Your task to perform on an android device: turn off location Image 0: 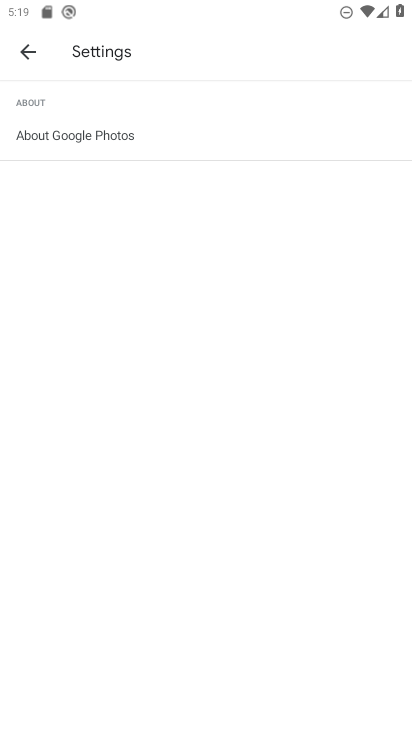
Step 0: press home button
Your task to perform on an android device: turn off location Image 1: 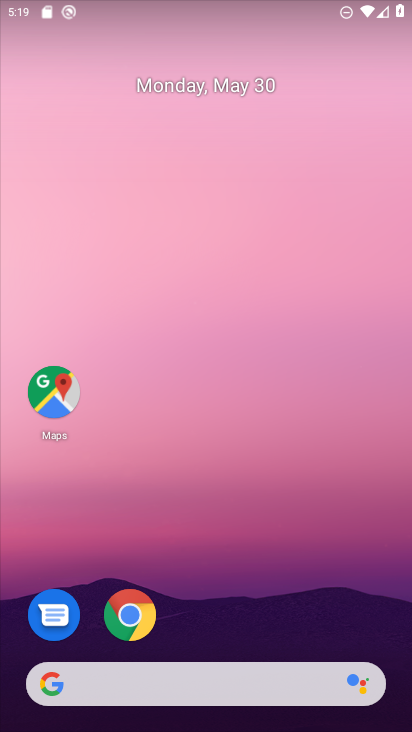
Step 1: drag from (300, 594) to (363, 131)
Your task to perform on an android device: turn off location Image 2: 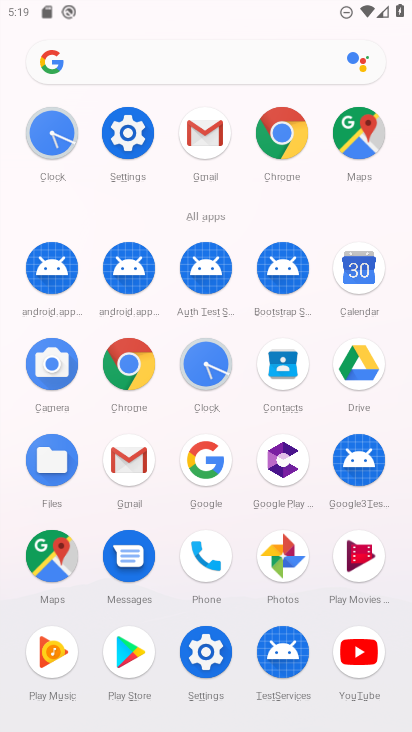
Step 2: click (129, 119)
Your task to perform on an android device: turn off location Image 3: 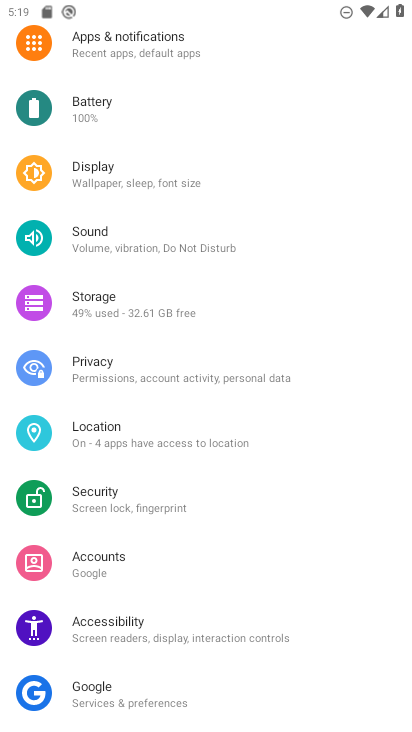
Step 3: click (169, 438)
Your task to perform on an android device: turn off location Image 4: 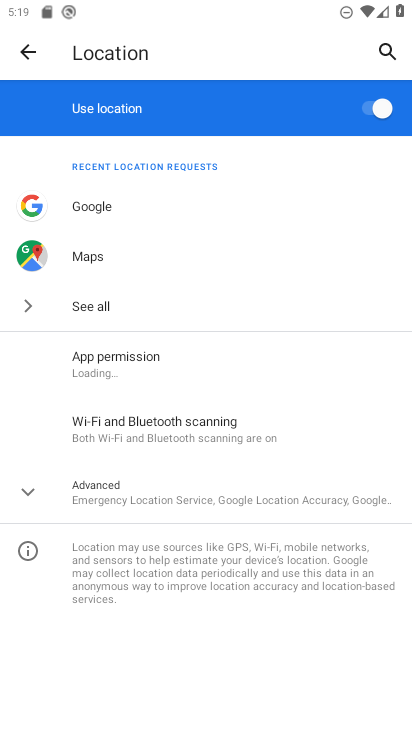
Step 4: click (366, 118)
Your task to perform on an android device: turn off location Image 5: 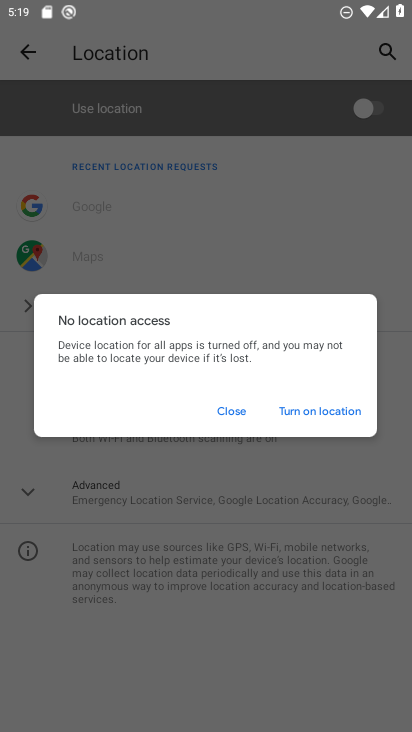
Step 5: task complete